Your task to perform on an android device: Go to sound settings Image 0: 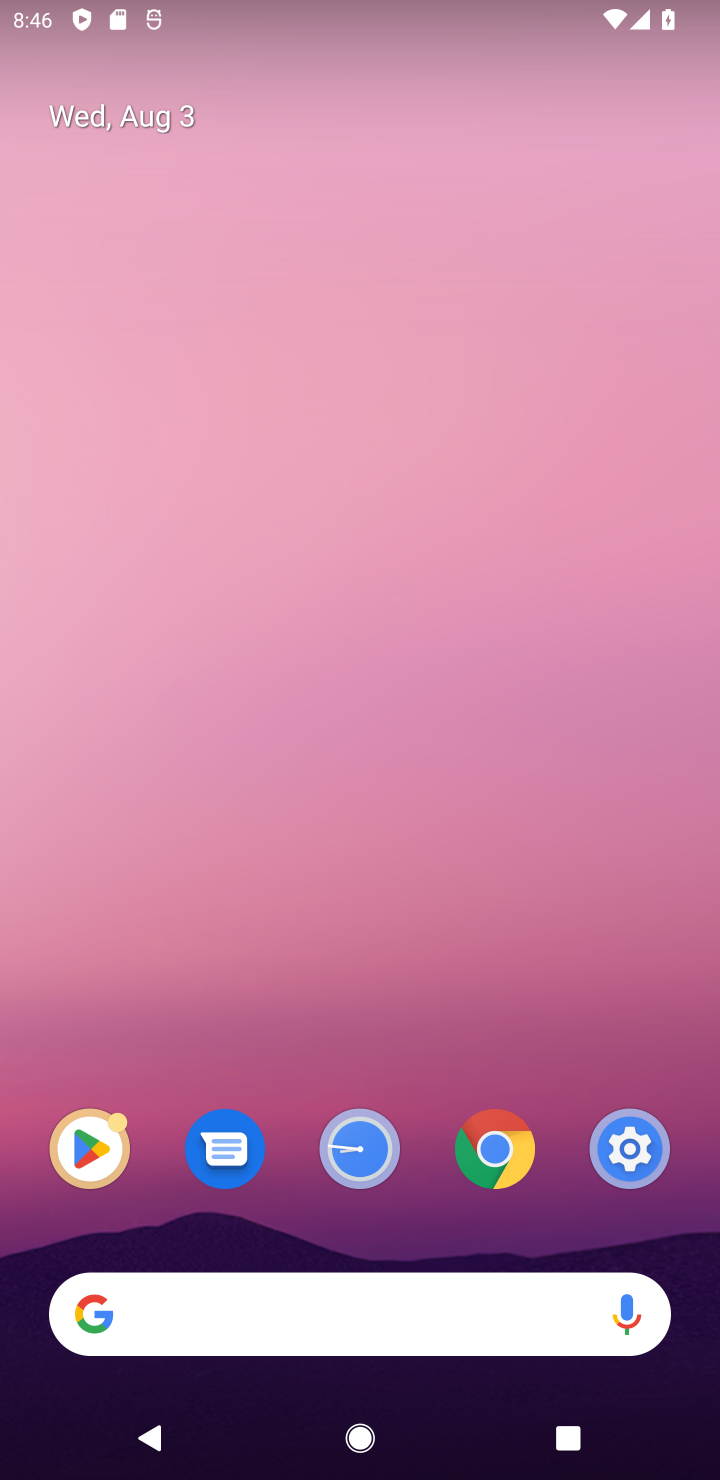
Step 0: click (639, 1133)
Your task to perform on an android device: Go to sound settings Image 1: 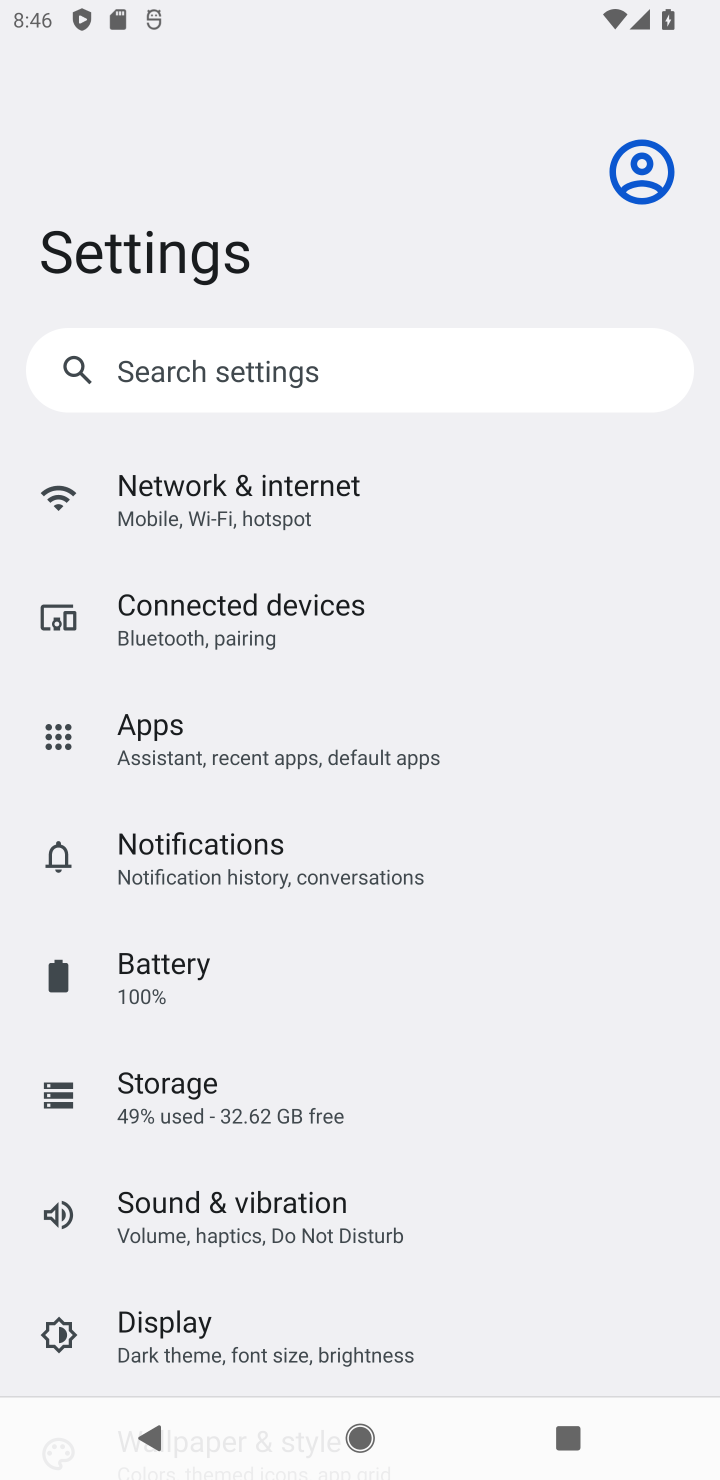
Step 1: click (248, 1231)
Your task to perform on an android device: Go to sound settings Image 2: 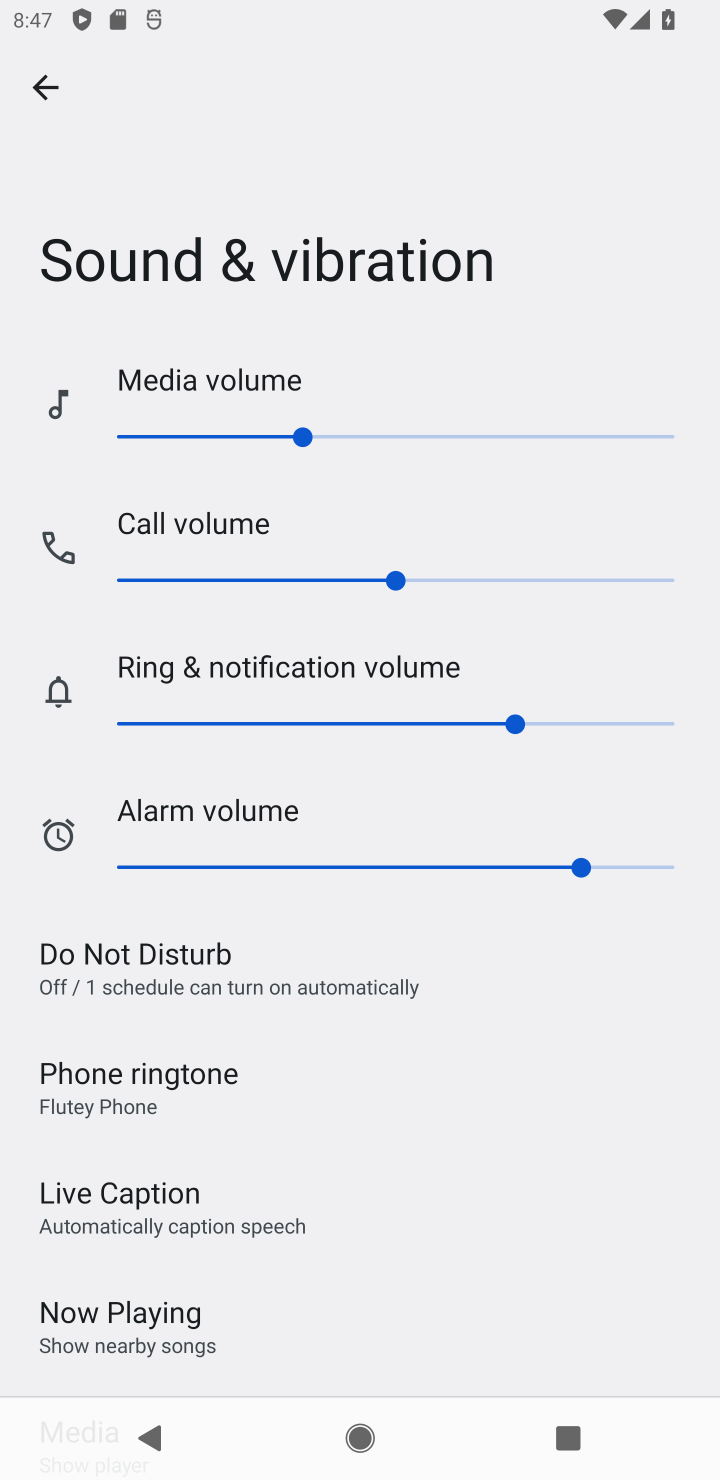
Step 2: task complete